Your task to perform on an android device: turn off notifications in google photos Image 0: 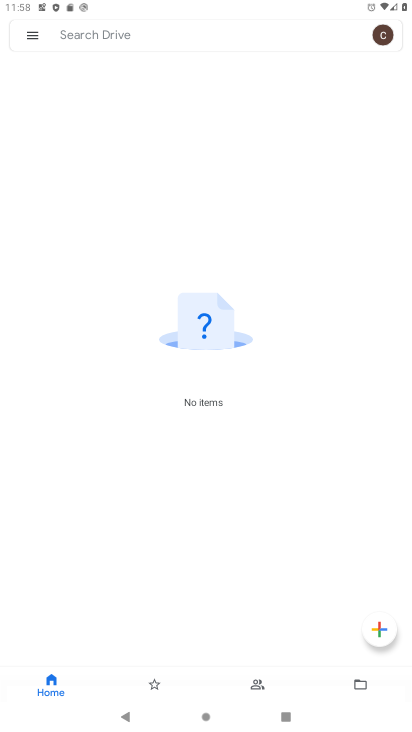
Step 0: click (32, 34)
Your task to perform on an android device: turn off notifications in google photos Image 1: 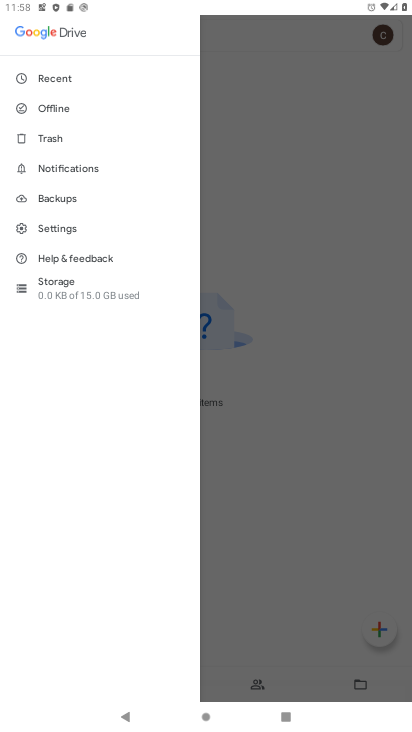
Step 1: click (52, 229)
Your task to perform on an android device: turn off notifications in google photos Image 2: 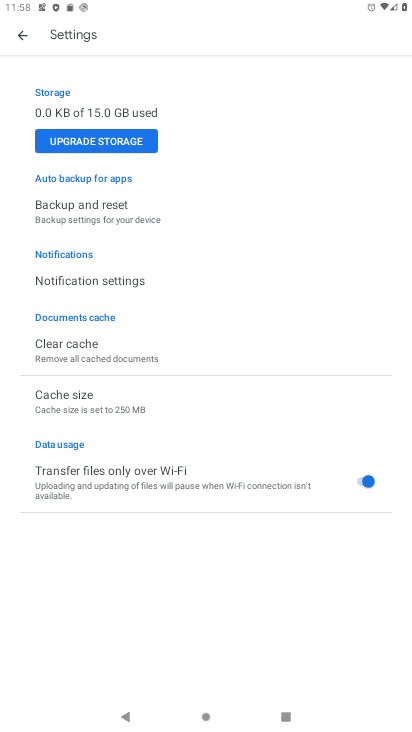
Step 2: click (137, 282)
Your task to perform on an android device: turn off notifications in google photos Image 3: 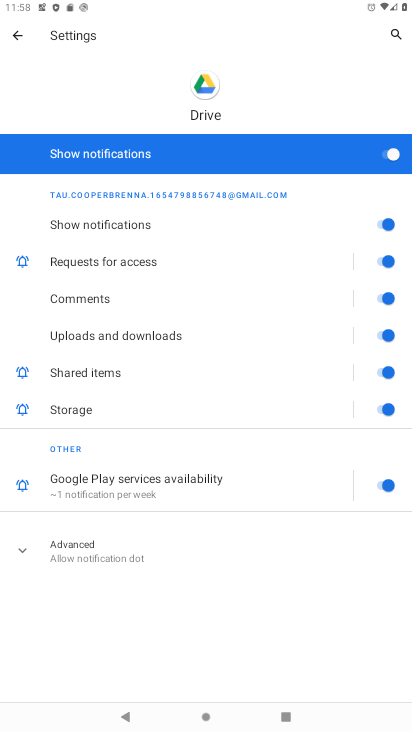
Step 3: click (382, 159)
Your task to perform on an android device: turn off notifications in google photos Image 4: 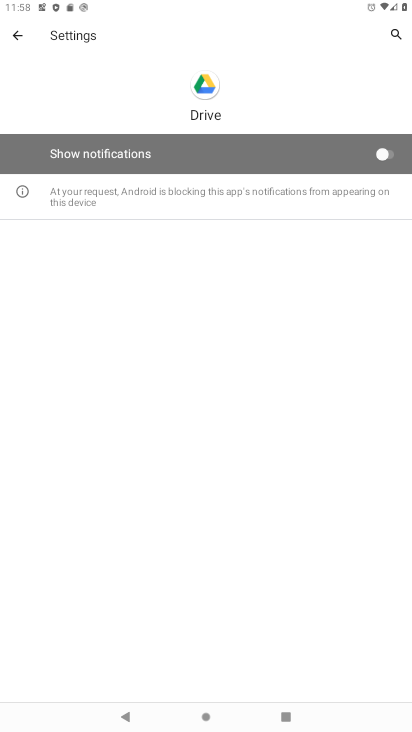
Step 4: task complete